Your task to perform on an android device: empty trash in the gmail app Image 0: 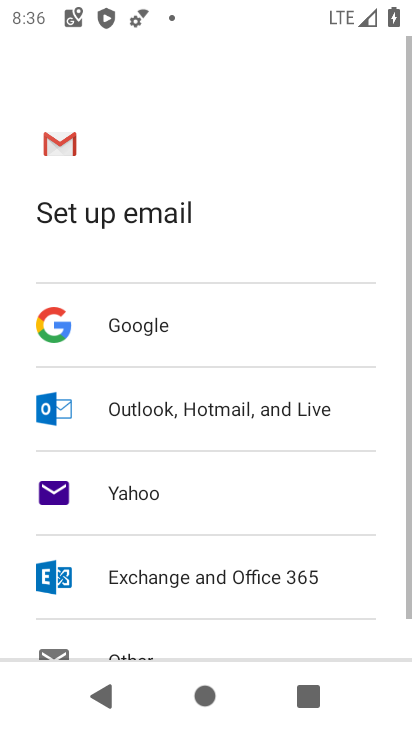
Step 0: press back button
Your task to perform on an android device: empty trash in the gmail app Image 1: 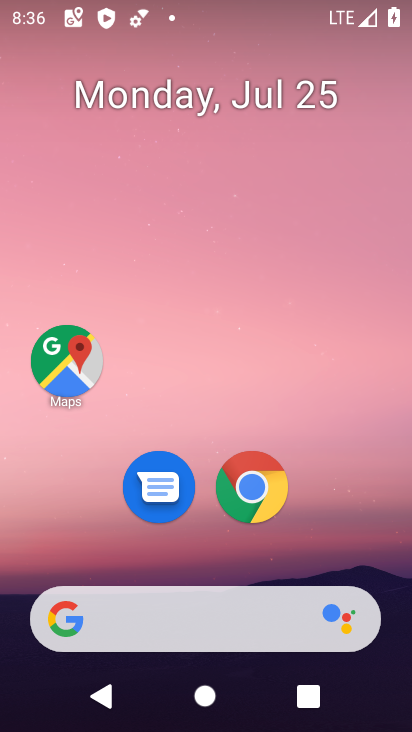
Step 1: drag from (160, 570) to (223, 8)
Your task to perform on an android device: empty trash in the gmail app Image 2: 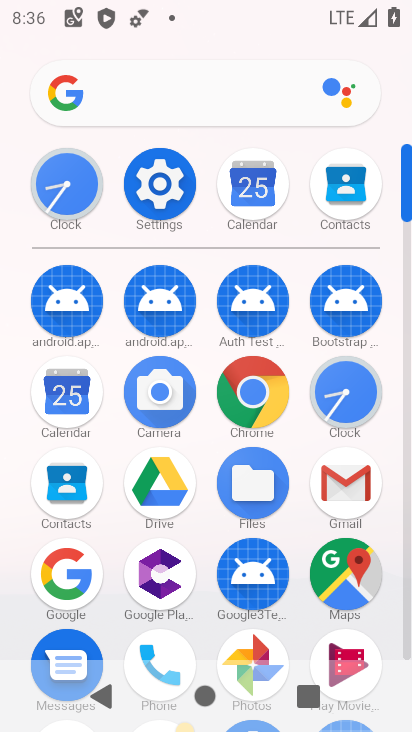
Step 2: click (346, 499)
Your task to perform on an android device: empty trash in the gmail app Image 3: 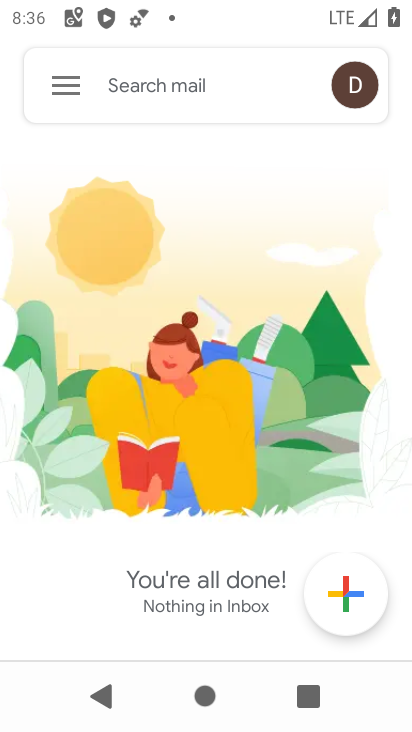
Step 3: click (56, 83)
Your task to perform on an android device: empty trash in the gmail app Image 4: 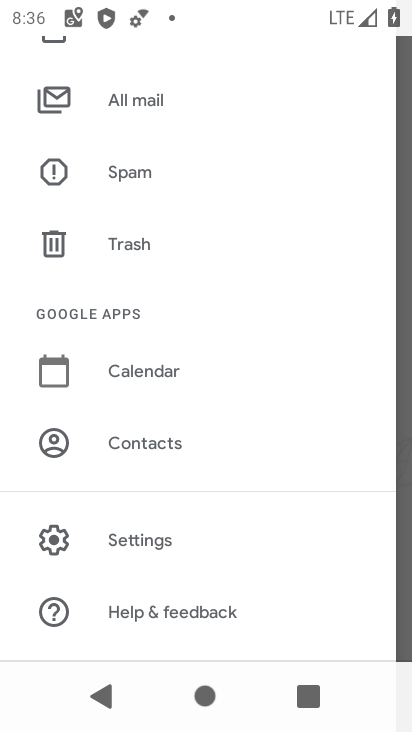
Step 4: click (143, 247)
Your task to perform on an android device: empty trash in the gmail app Image 5: 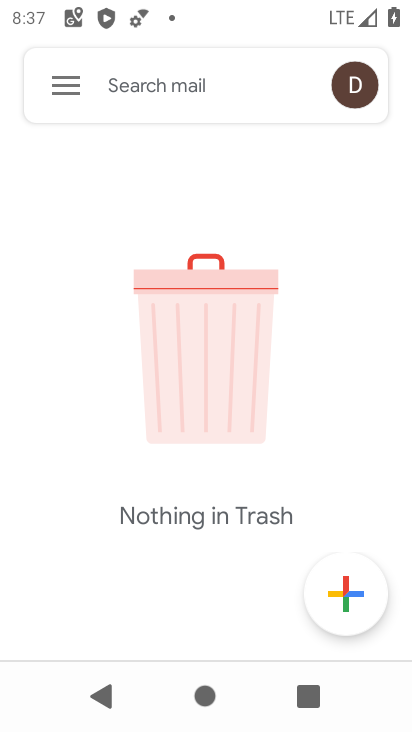
Step 5: task complete